Your task to perform on an android device: Open Chrome and go to the settings page Image 0: 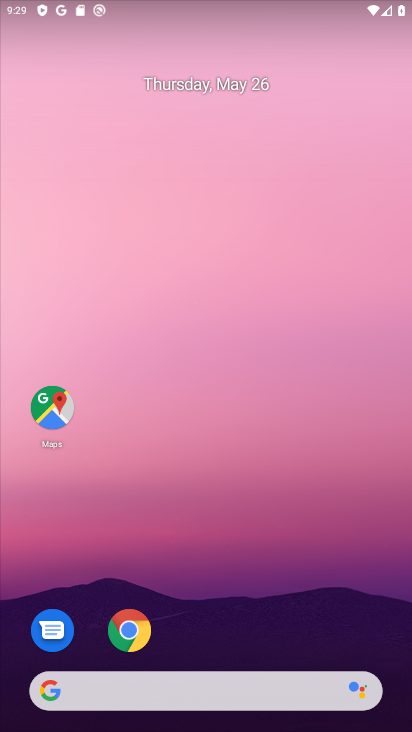
Step 0: click (134, 634)
Your task to perform on an android device: Open Chrome and go to the settings page Image 1: 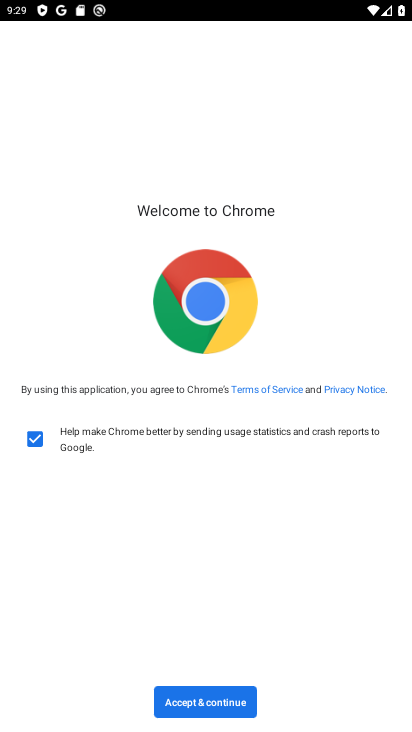
Step 1: click (193, 697)
Your task to perform on an android device: Open Chrome and go to the settings page Image 2: 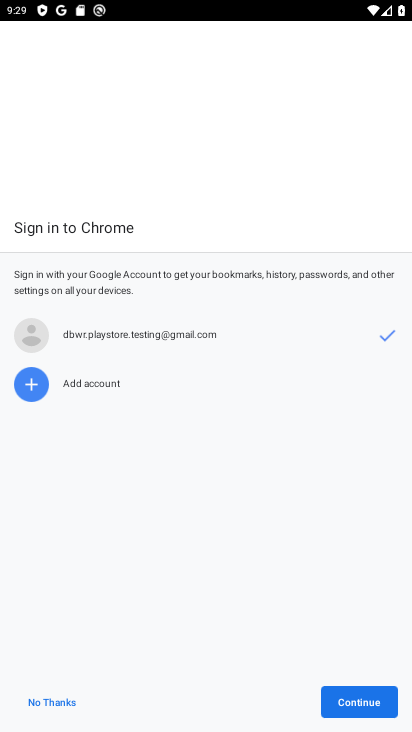
Step 2: click (324, 693)
Your task to perform on an android device: Open Chrome and go to the settings page Image 3: 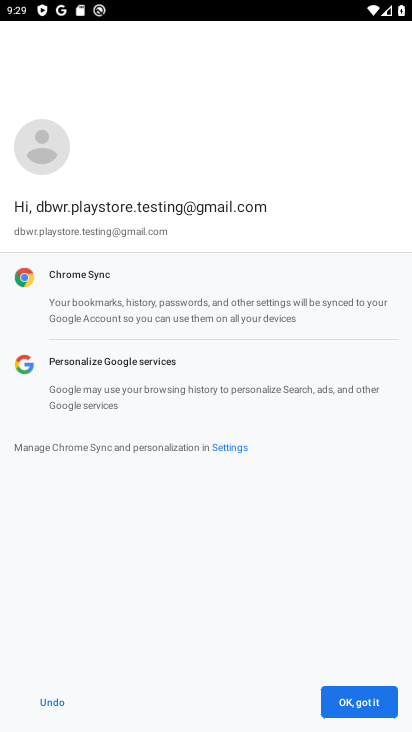
Step 3: click (348, 696)
Your task to perform on an android device: Open Chrome and go to the settings page Image 4: 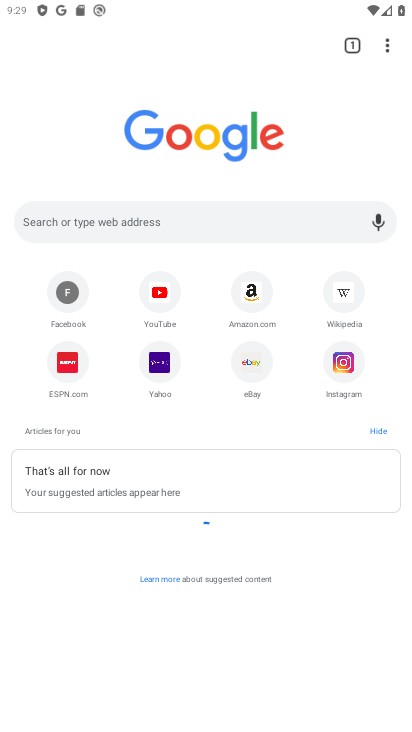
Step 4: click (389, 49)
Your task to perform on an android device: Open Chrome and go to the settings page Image 5: 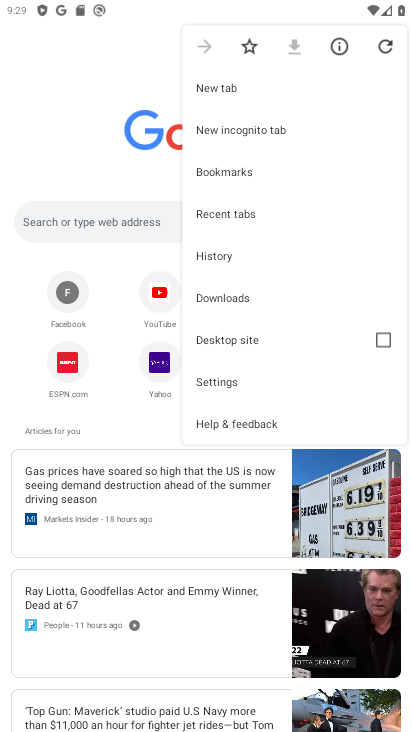
Step 5: click (216, 377)
Your task to perform on an android device: Open Chrome and go to the settings page Image 6: 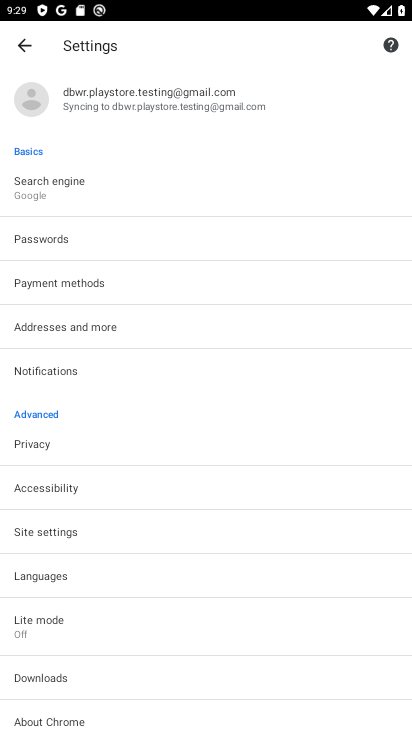
Step 6: task complete